Your task to perform on an android device: Search for good BBQ restaurants Image 0: 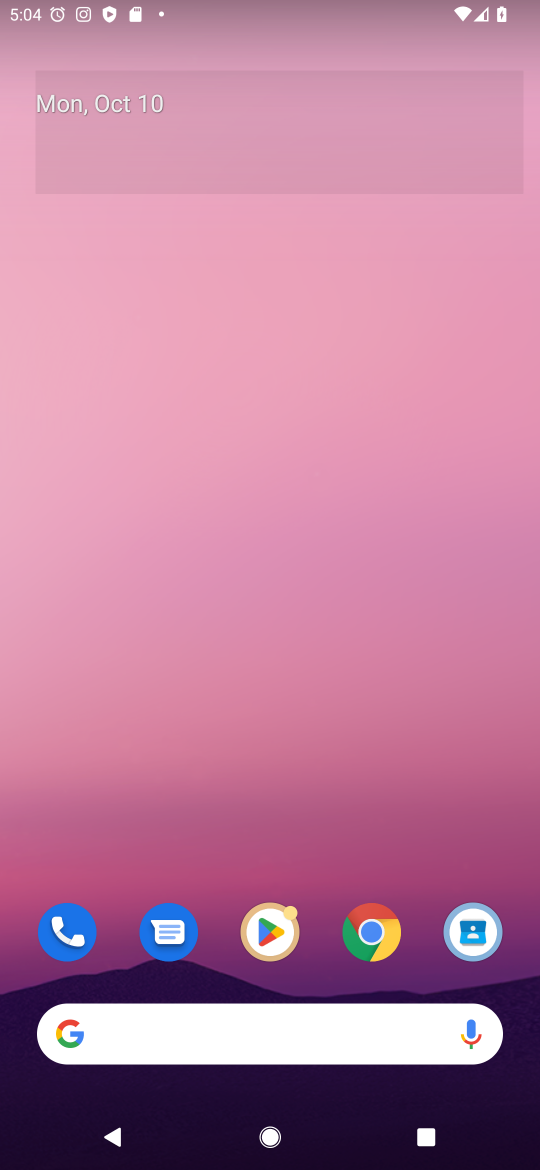
Step 0: press home button
Your task to perform on an android device: Search for good BBQ restaurants Image 1: 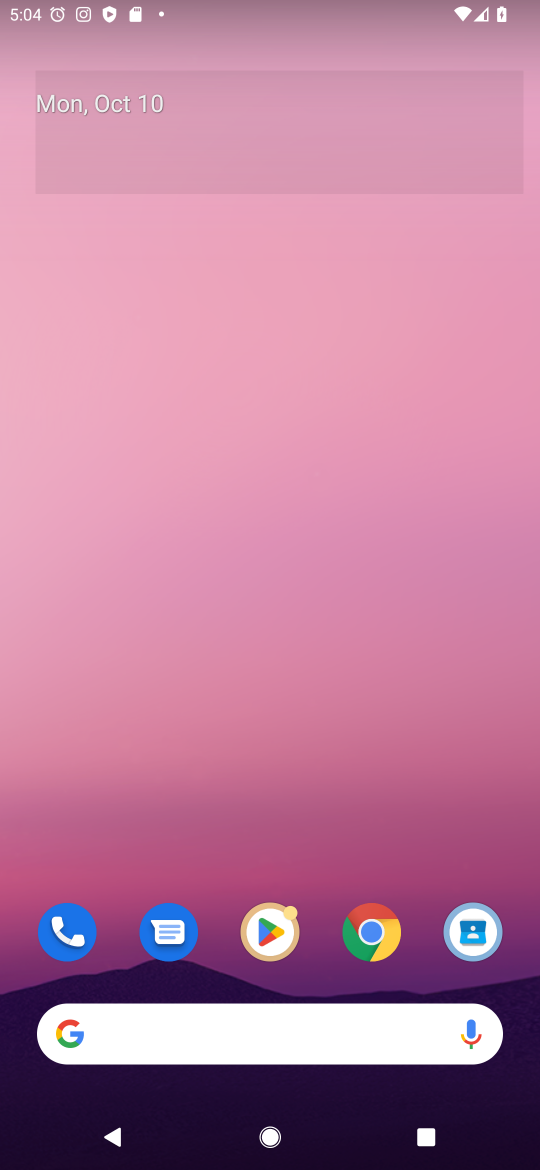
Step 1: click (308, 1040)
Your task to perform on an android device: Search for good BBQ restaurants Image 2: 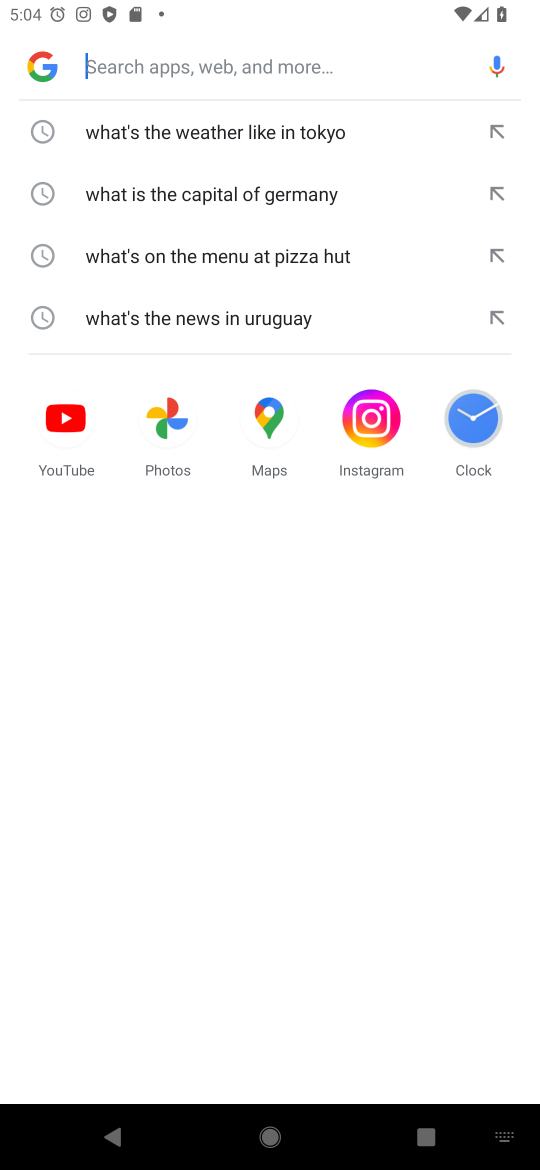
Step 2: type "good BBQ restaurants"
Your task to perform on an android device: Search for good BBQ restaurants Image 3: 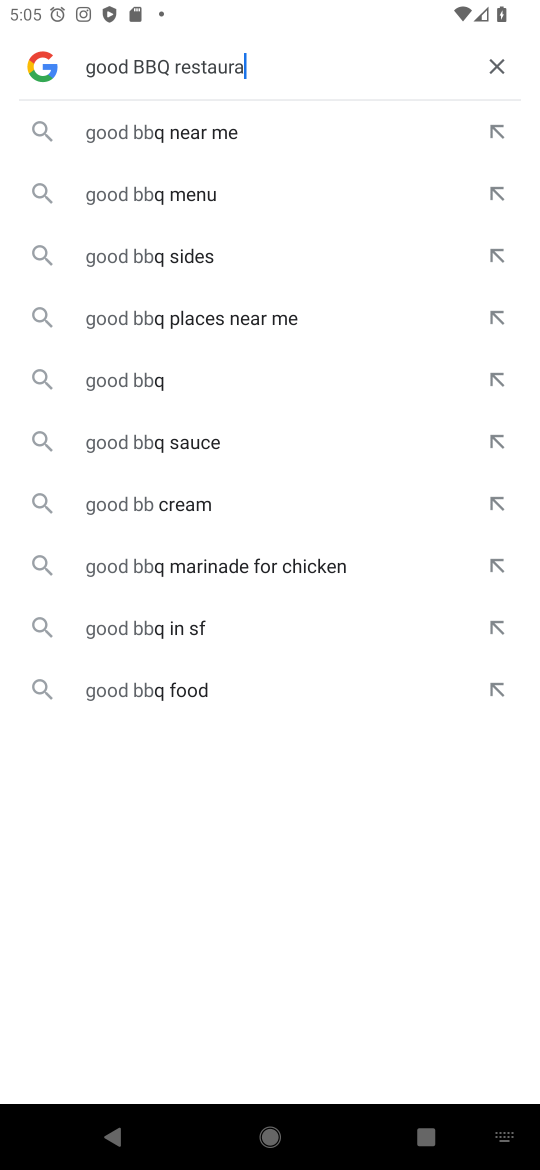
Step 3: press enter
Your task to perform on an android device: Search for good BBQ restaurants Image 4: 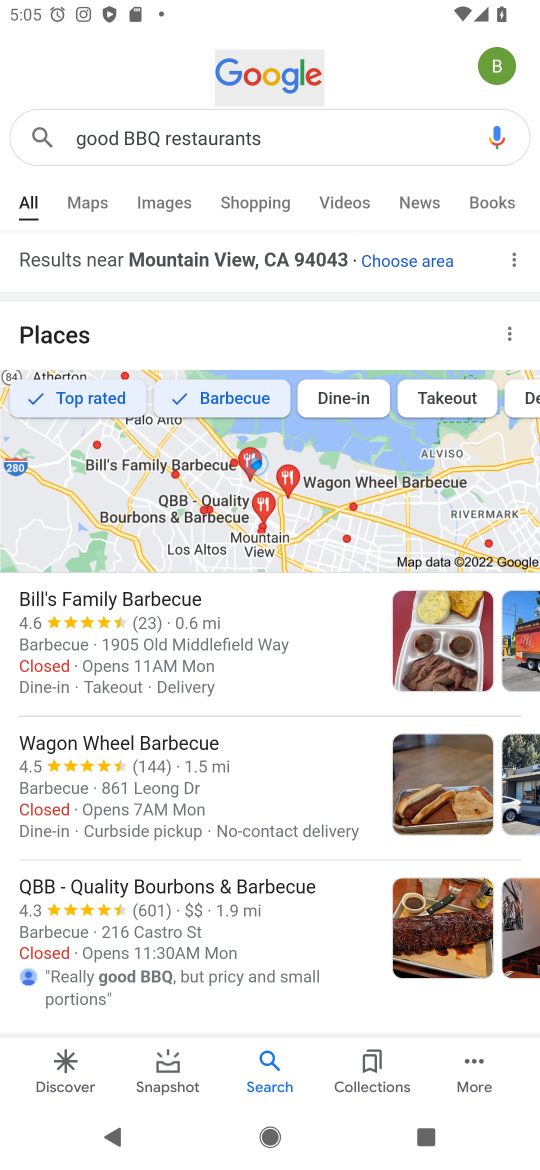
Step 4: task complete